Your task to perform on an android device: star an email in the gmail app Image 0: 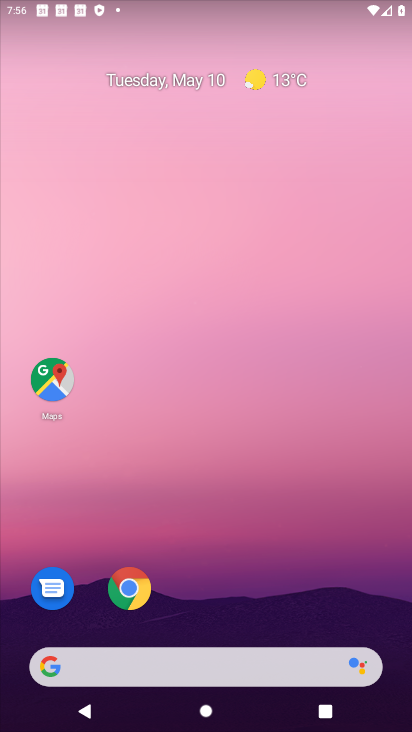
Step 0: drag from (217, 621) to (215, 72)
Your task to perform on an android device: star an email in the gmail app Image 1: 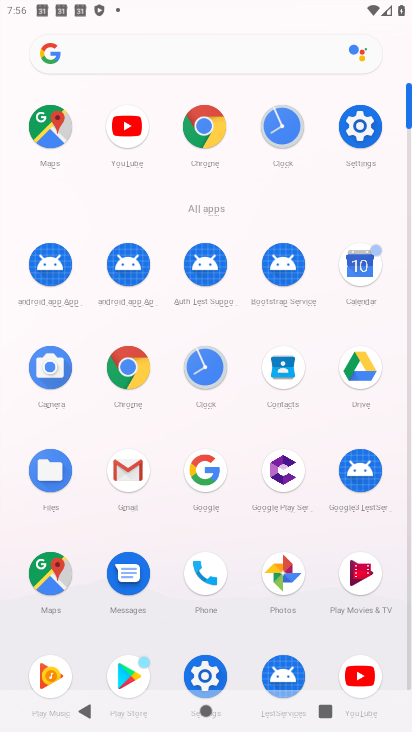
Step 1: click (123, 464)
Your task to perform on an android device: star an email in the gmail app Image 2: 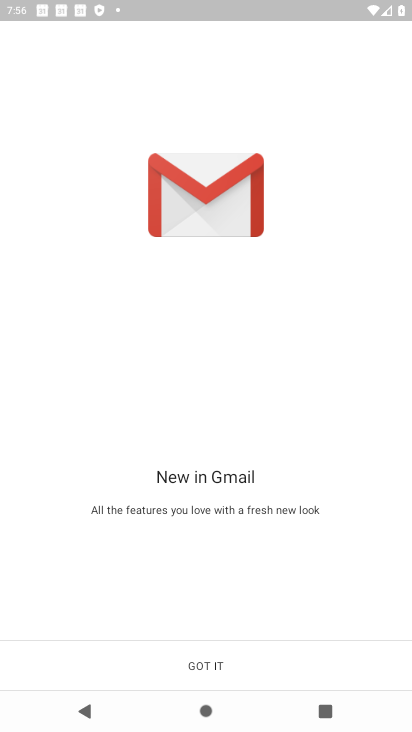
Step 2: click (216, 660)
Your task to perform on an android device: star an email in the gmail app Image 3: 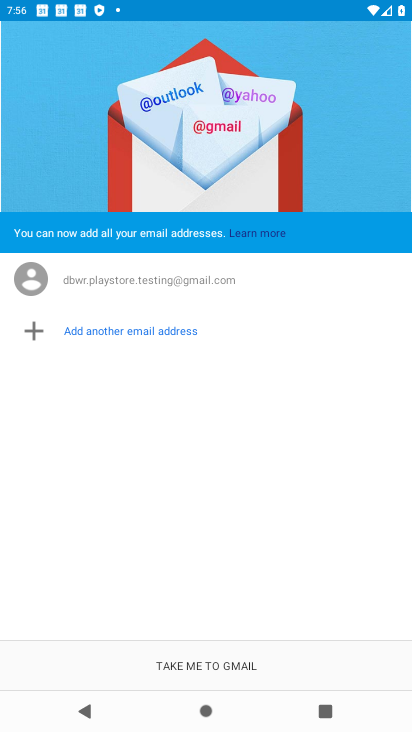
Step 3: click (216, 660)
Your task to perform on an android device: star an email in the gmail app Image 4: 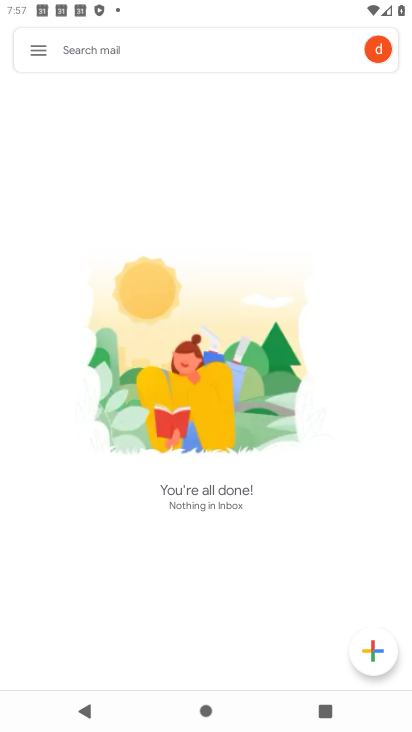
Step 4: task complete